Your task to perform on an android device: add a label to a message in the gmail app Image 0: 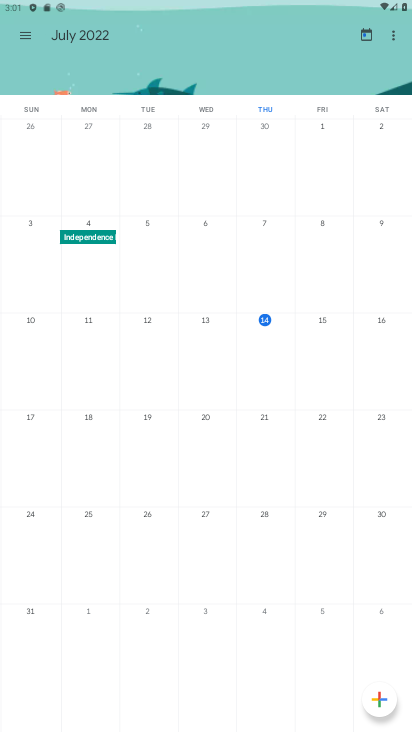
Step 0: press home button
Your task to perform on an android device: add a label to a message in the gmail app Image 1: 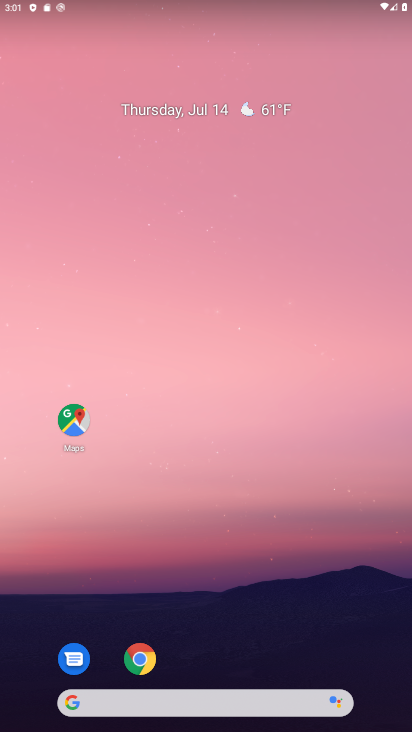
Step 1: drag from (182, 693) to (241, 261)
Your task to perform on an android device: add a label to a message in the gmail app Image 2: 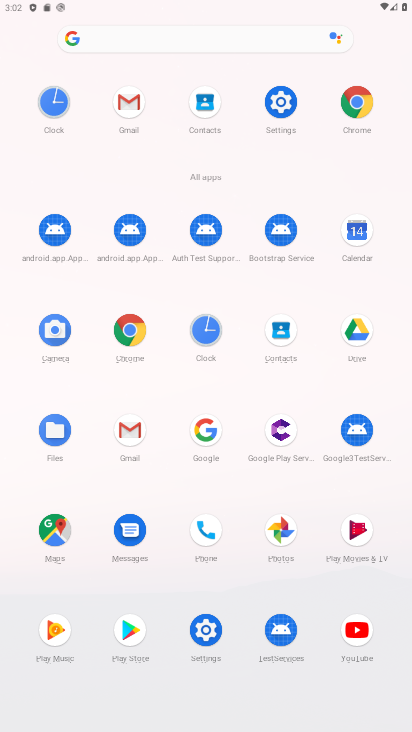
Step 2: click (128, 102)
Your task to perform on an android device: add a label to a message in the gmail app Image 3: 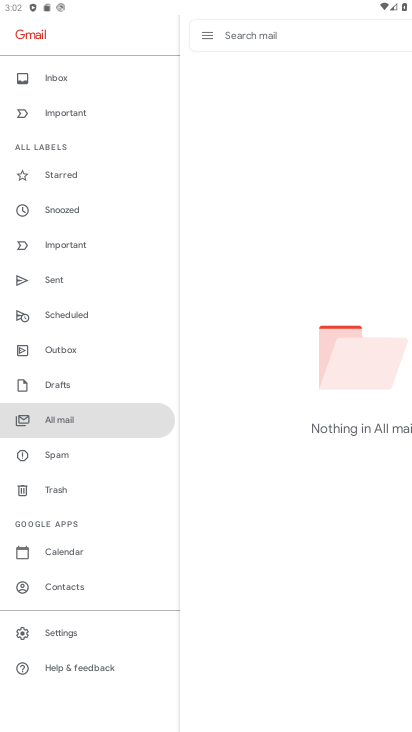
Step 3: click (58, 180)
Your task to perform on an android device: add a label to a message in the gmail app Image 4: 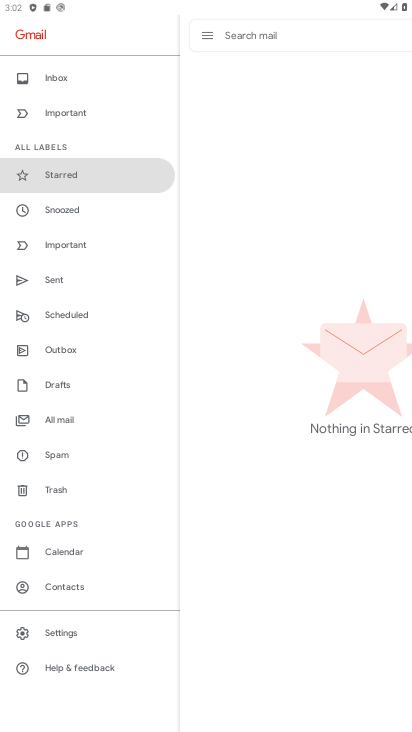
Step 4: click (46, 214)
Your task to perform on an android device: add a label to a message in the gmail app Image 5: 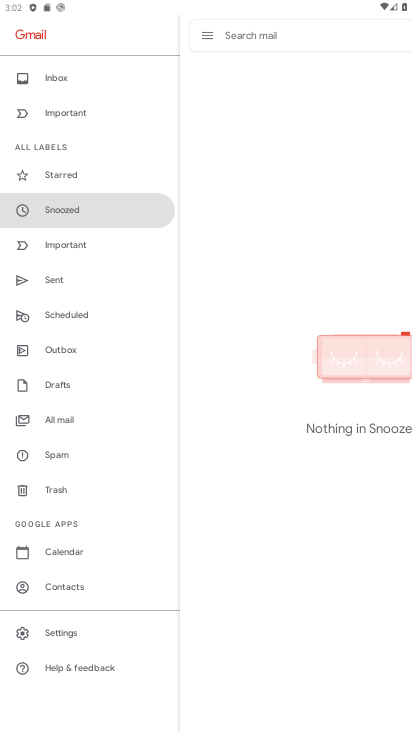
Step 5: click (53, 252)
Your task to perform on an android device: add a label to a message in the gmail app Image 6: 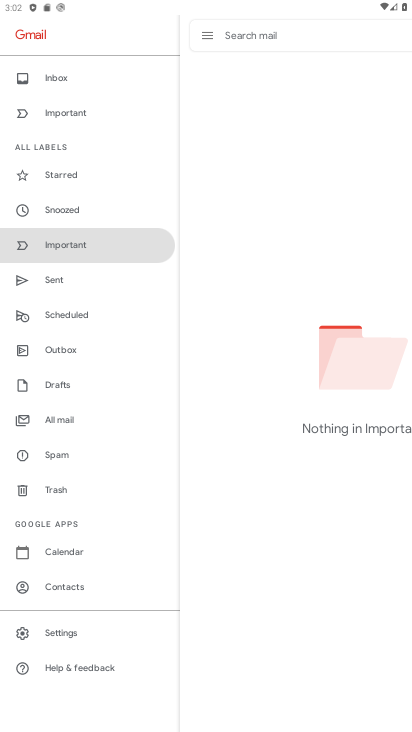
Step 6: click (64, 285)
Your task to perform on an android device: add a label to a message in the gmail app Image 7: 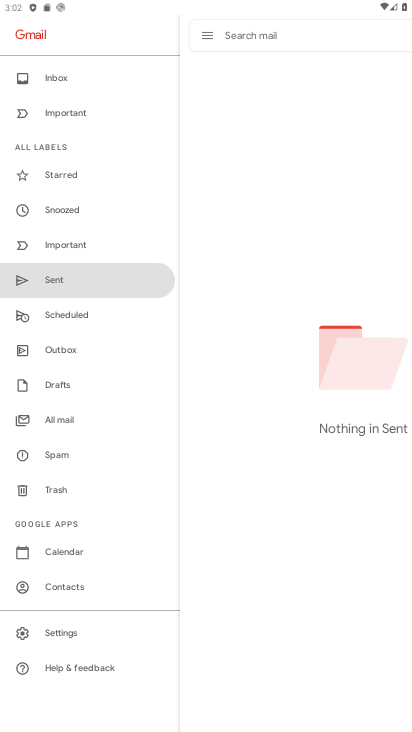
Step 7: click (70, 319)
Your task to perform on an android device: add a label to a message in the gmail app Image 8: 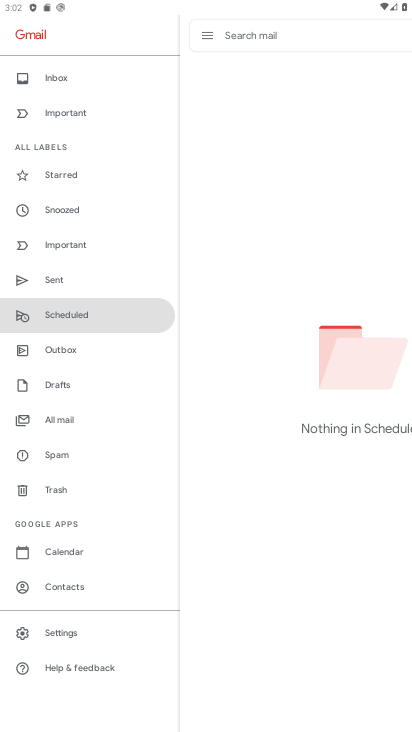
Step 8: click (70, 356)
Your task to perform on an android device: add a label to a message in the gmail app Image 9: 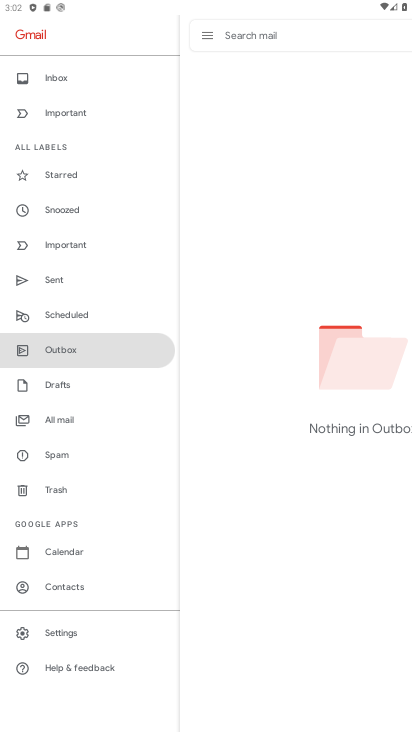
Step 9: click (72, 391)
Your task to perform on an android device: add a label to a message in the gmail app Image 10: 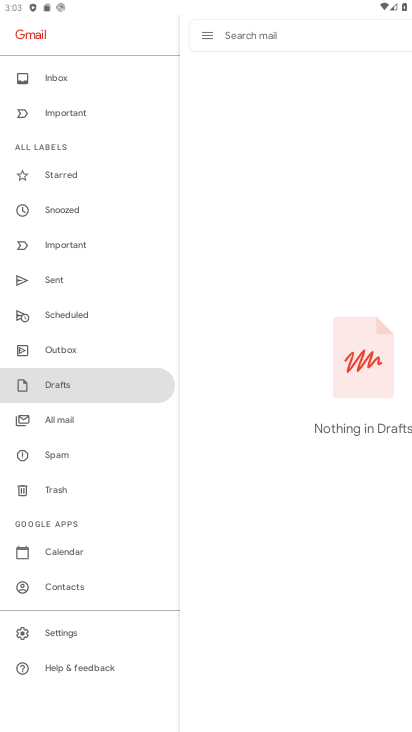
Step 10: click (60, 421)
Your task to perform on an android device: add a label to a message in the gmail app Image 11: 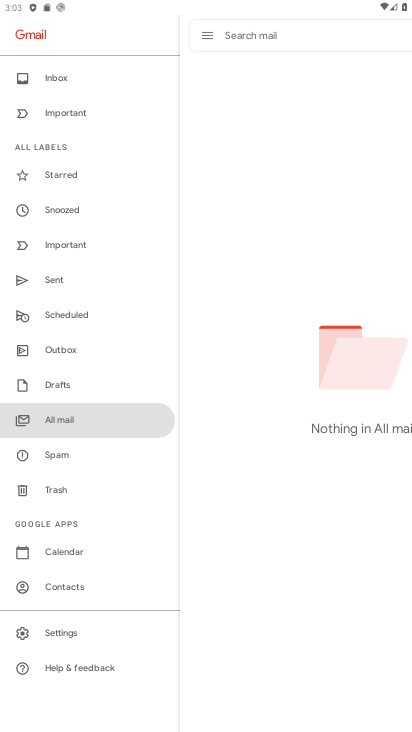
Step 11: click (69, 460)
Your task to perform on an android device: add a label to a message in the gmail app Image 12: 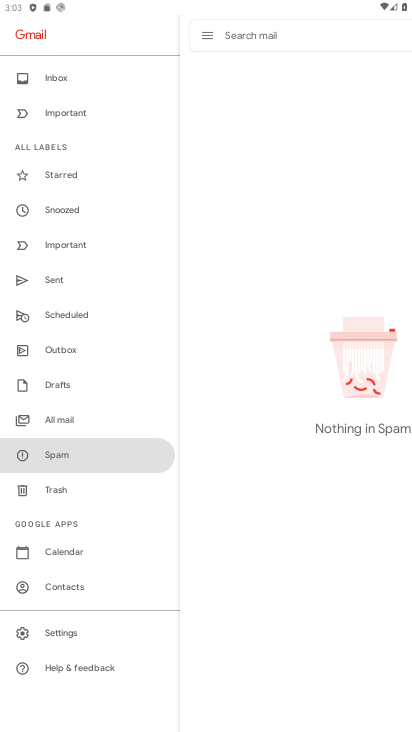
Step 12: task complete